Your task to perform on an android device: What is the recent news? Image 0: 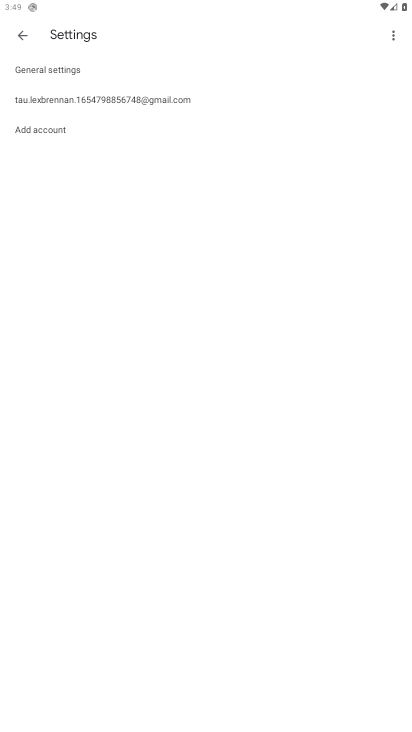
Step 0: press home button
Your task to perform on an android device: What is the recent news? Image 1: 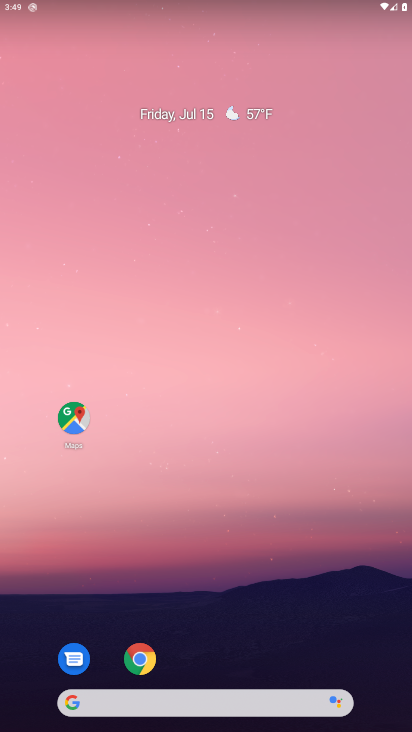
Step 1: click (141, 692)
Your task to perform on an android device: What is the recent news? Image 2: 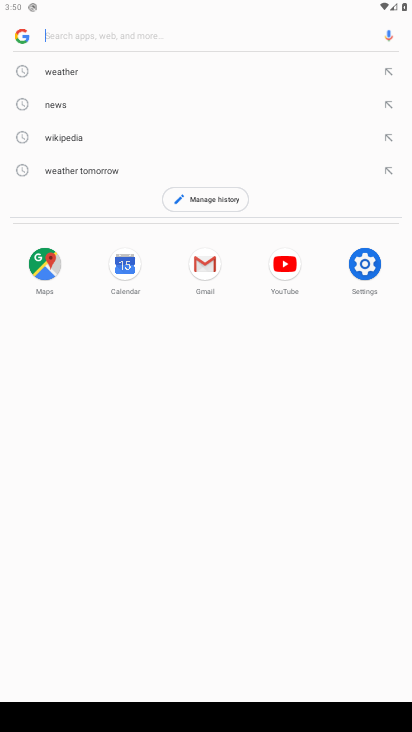
Step 2: type "What is the recent news?"
Your task to perform on an android device: What is the recent news? Image 3: 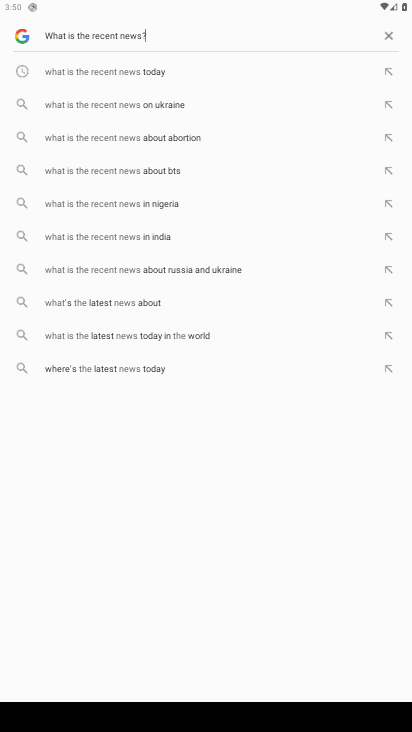
Step 3: task complete